Your task to perform on an android device: toggle sleep mode Image 0: 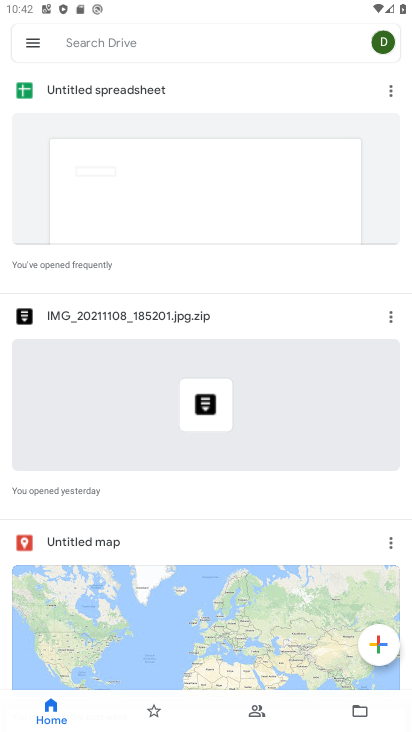
Step 0: press home button
Your task to perform on an android device: toggle sleep mode Image 1: 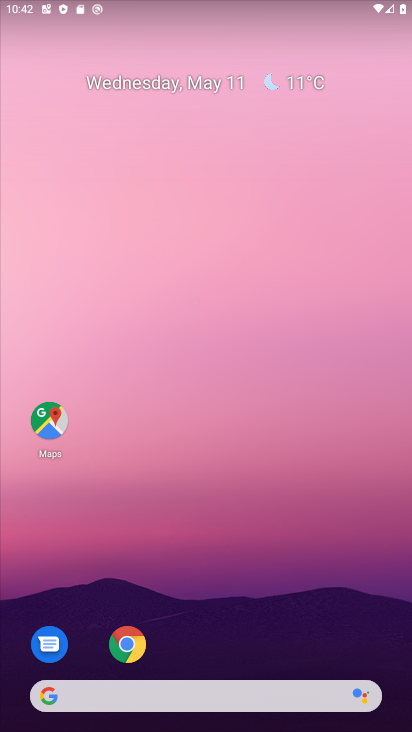
Step 1: drag from (262, 607) to (264, 8)
Your task to perform on an android device: toggle sleep mode Image 2: 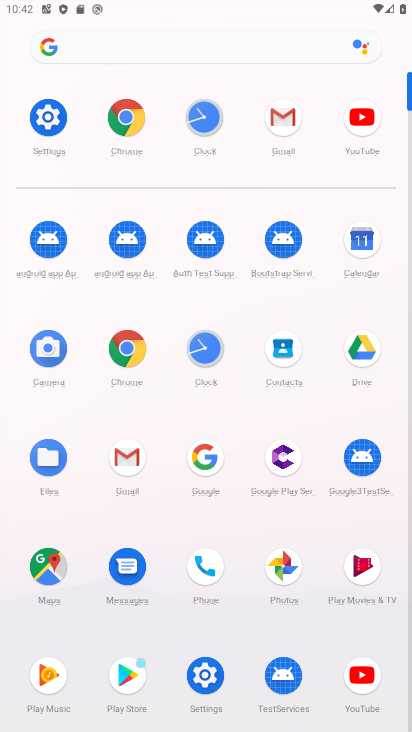
Step 2: click (36, 115)
Your task to perform on an android device: toggle sleep mode Image 3: 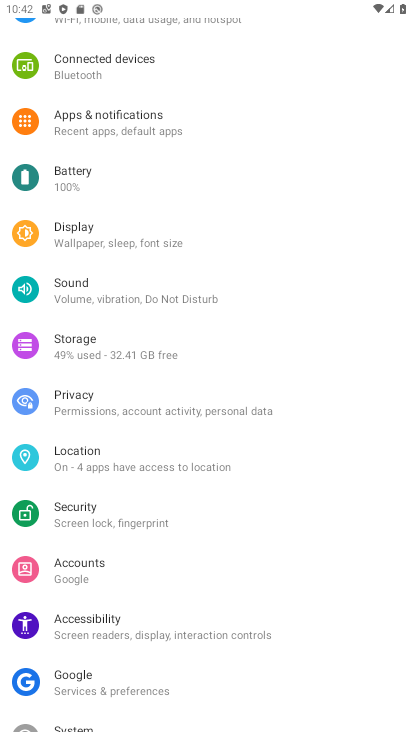
Step 3: click (64, 237)
Your task to perform on an android device: toggle sleep mode Image 4: 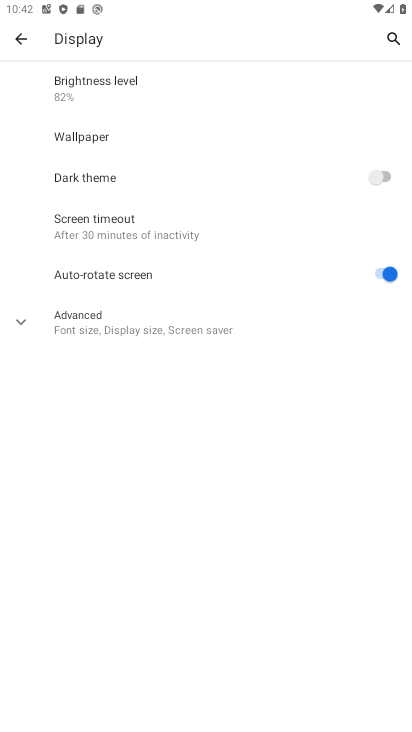
Step 4: click (19, 331)
Your task to perform on an android device: toggle sleep mode Image 5: 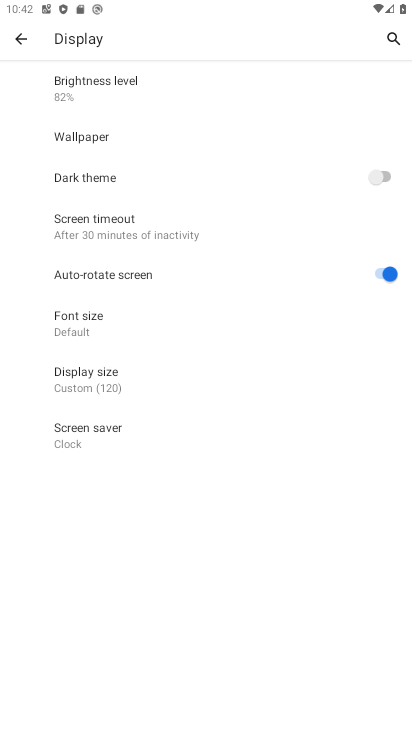
Step 5: task complete